Your task to perform on an android device: change notification settings in the gmail app Image 0: 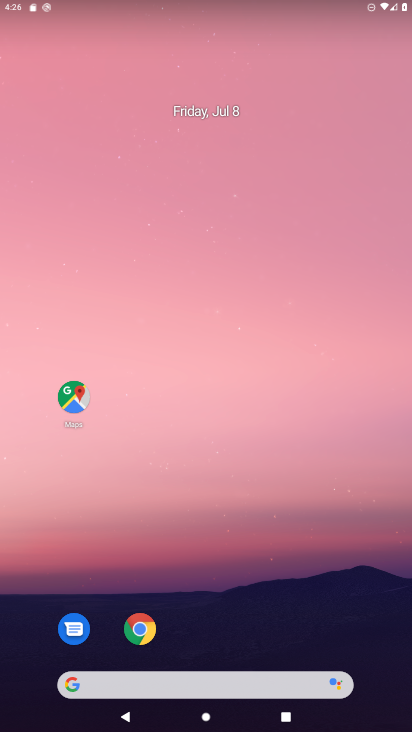
Step 0: drag from (285, 637) to (263, 335)
Your task to perform on an android device: change notification settings in the gmail app Image 1: 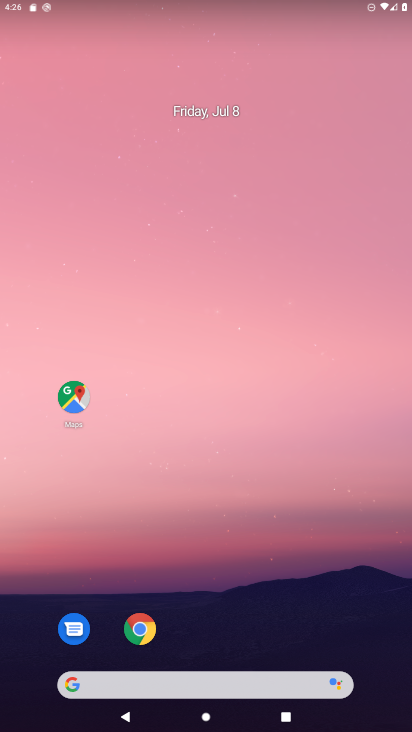
Step 1: drag from (240, 614) to (225, 301)
Your task to perform on an android device: change notification settings in the gmail app Image 2: 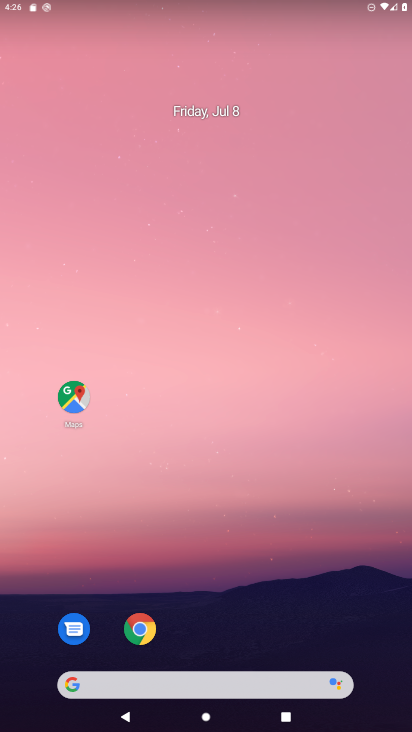
Step 2: drag from (247, 604) to (167, 25)
Your task to perform on an android device: change notification settings in the gmail app Image 3: 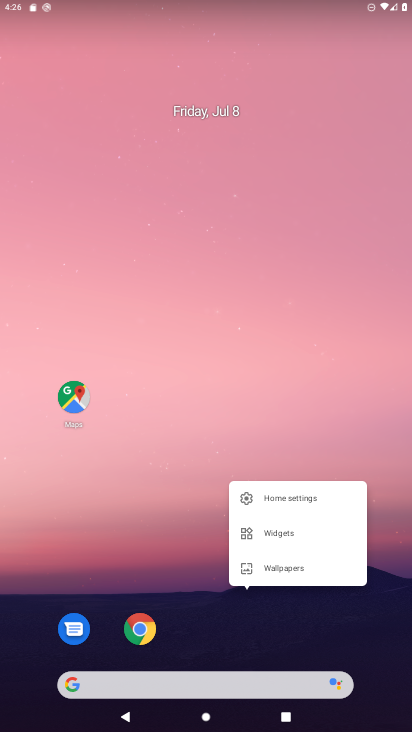
Step 3: click (147, 367)
Your task to perform on an android device: change notification settings in the gmail app Image 4: 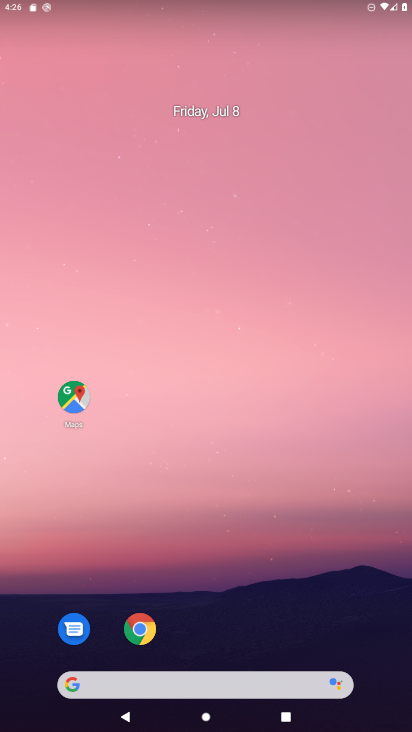
Step 4: drag from (271, 616) to (267, 108)
Your task to perform on an android device: change notification settings in the gmail app Image 5: 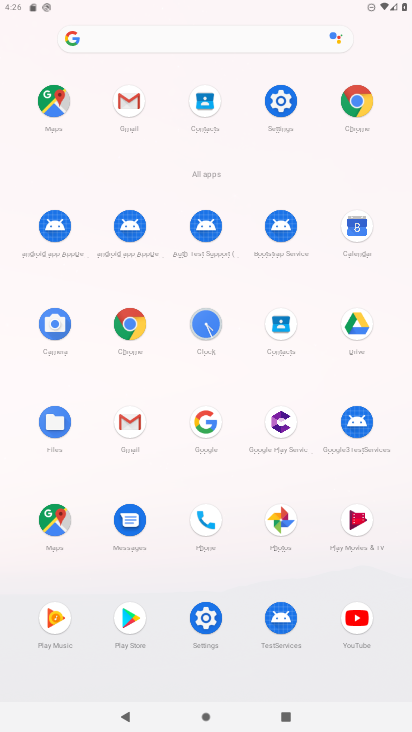
Step 5: click (133, 103)
Your task to perform on an android device: change notification settings in the gmail app Image 6: 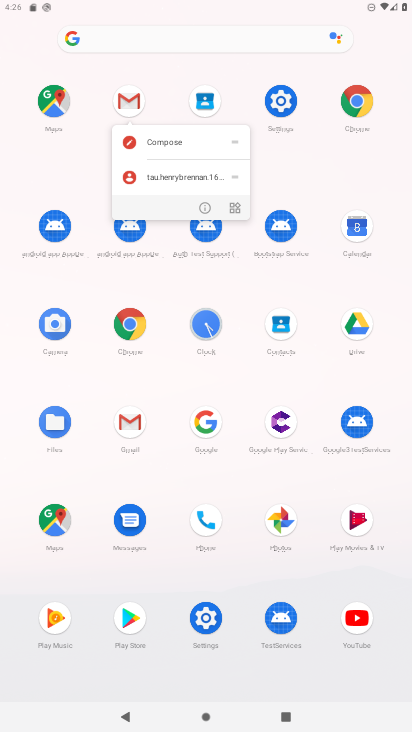
Step 6: click (133, 103)
Your task to perform on an android device: change notification settings in the gmail app Image 7: 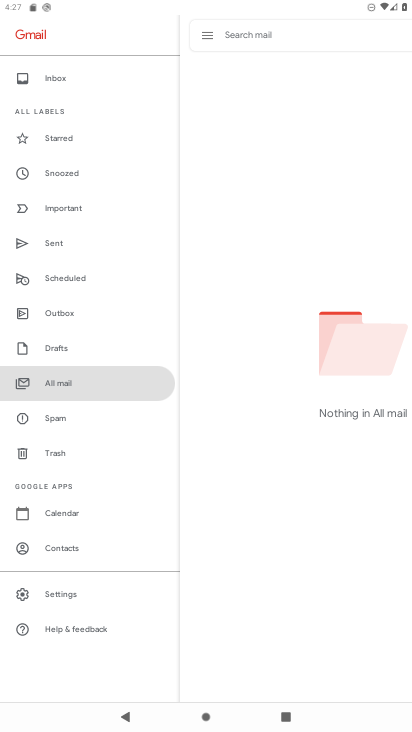
Step 7: click (75, 585)
Your task to perform on an android device: change notification settings in the gmail app Image 8: 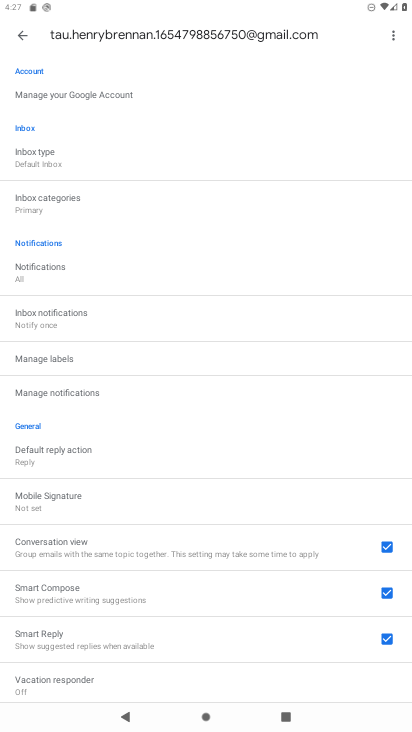
Step 8: click (63, 383)
Your task to perform on an android device: change notification settings in the gmail app Image 9: 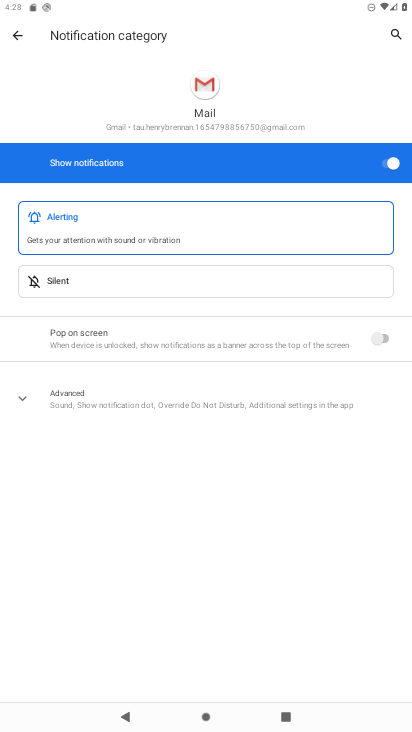
Step 9: press home button
Your task to perform on an android device: change notification settings in the gmail app Image 10: 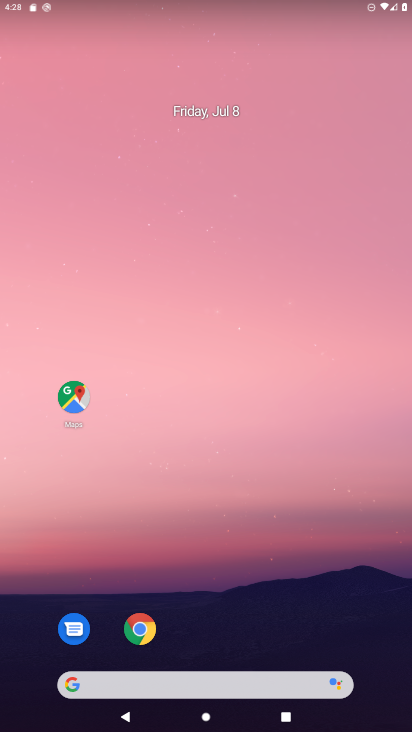
Step 10: drag from (225, 636) to (187, 133)
Your task to perform on an android device: change notification settings in the gmail app Image 11: 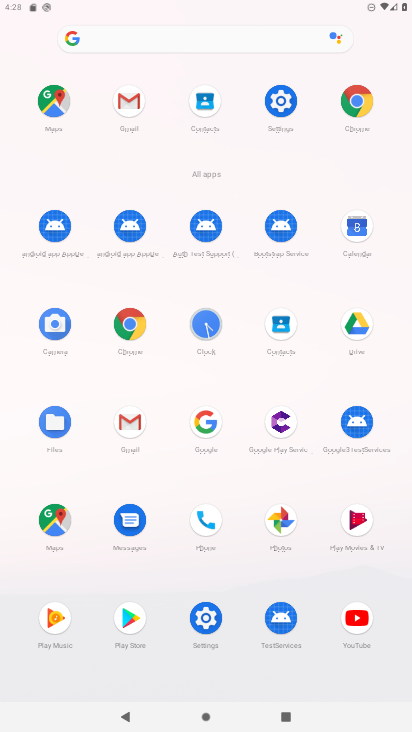
Step 11: click (133, 102)
Your task to perform on an android device: change notification settings in the gmail app Image 12: 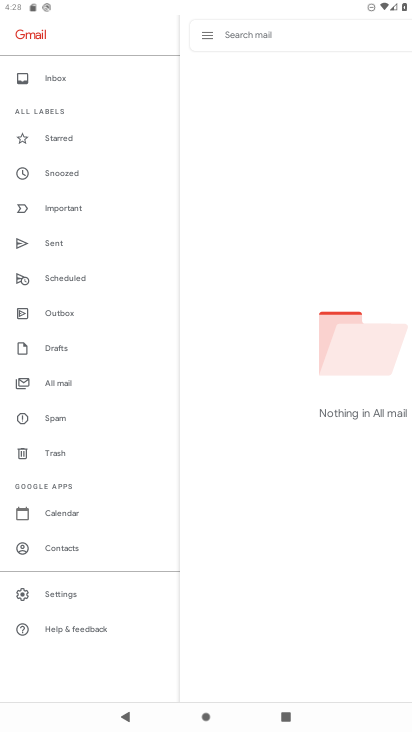
Step 12: click (77, 601)
Your task to perform on an android device: change notification settings in the gmail app Image 13: 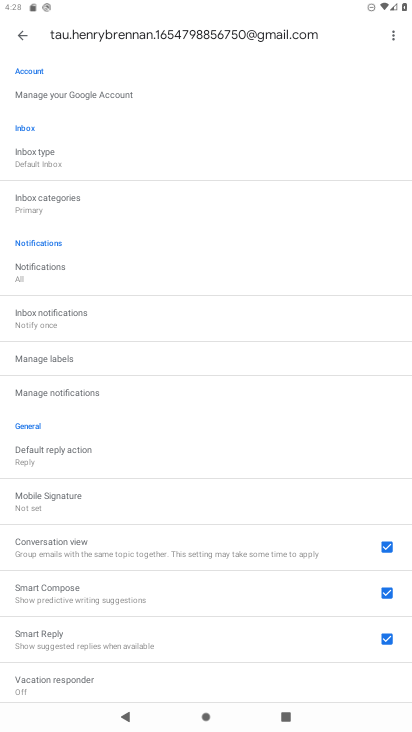
Step 13: click (94, 388)
Your task to perform on an android device: change notification settings in the gmail app Image 14: 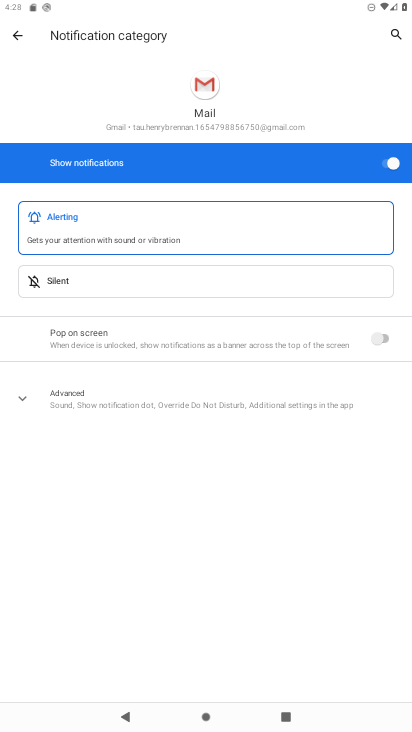
Step 14: task complete